Your task to perform on an android device: change notifications settings Image 0: 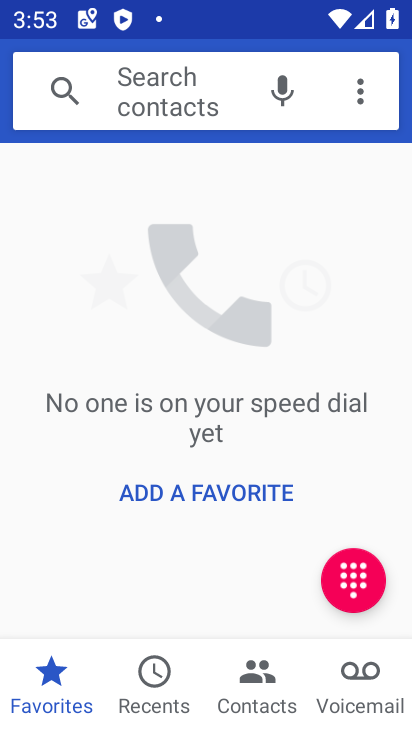
Step 0: press home button
Your task to perform on an android device: change notifications settings Image 1: 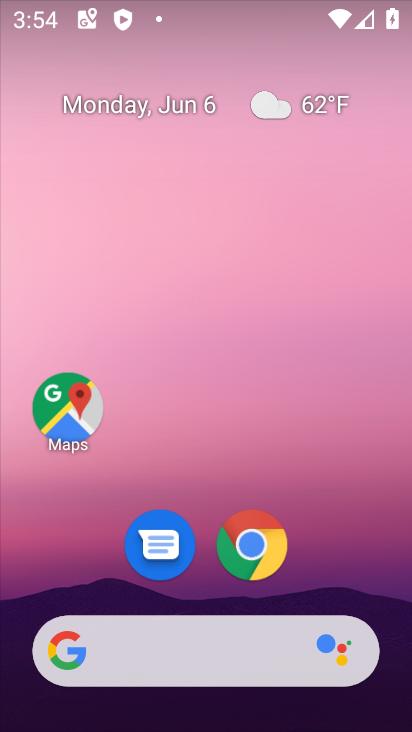
Step 1: drag from (225, 725) to (221, 135)
Your task to perform on an android device: change notifications settings Image 2: 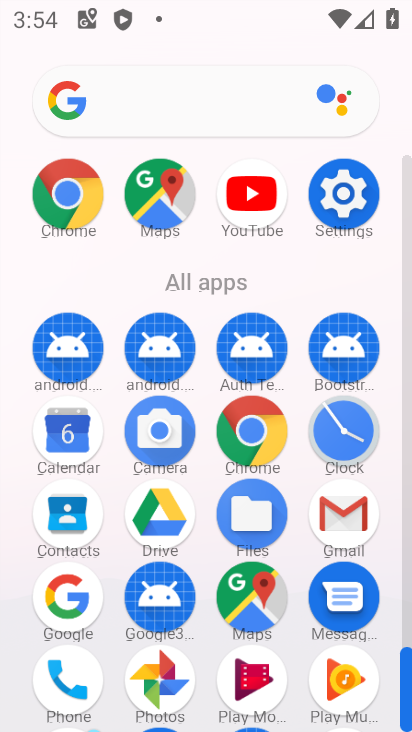
Step 2: click (339, 206)
Your task to perform on an android device: change notifications settings Image 3: 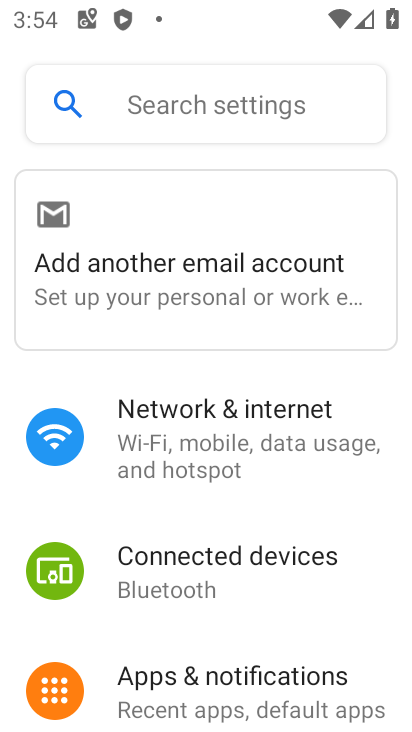
Step 3: click (258, 687)
Your task to perform on an android device: change notifications settings Image 4: 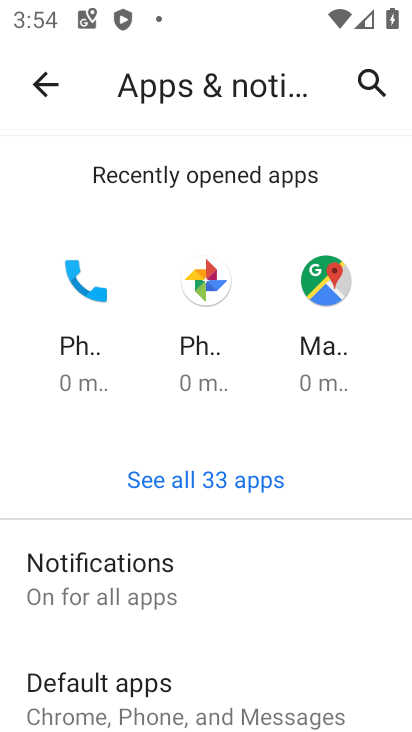
Step 4: drag from (206, 689) to (207, 367)
Your task to perform on an android device: change notifications settings Image 5: 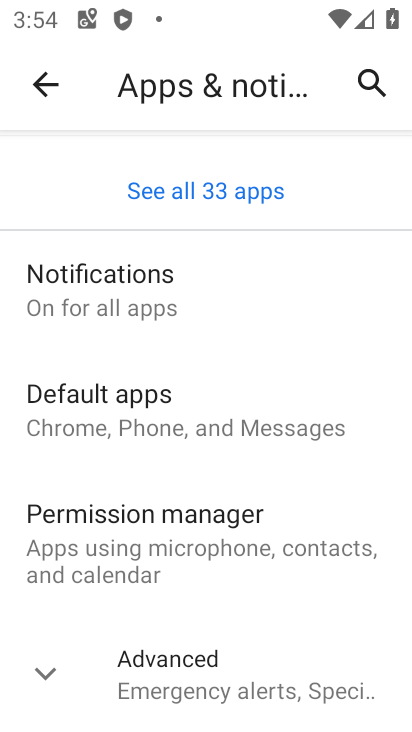
Step 5: click (80, 293)
Your task to perform on an android device: change notifications settings Image 6: 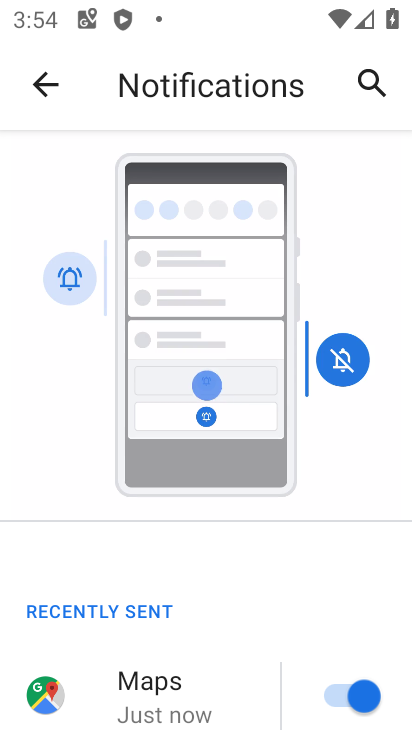
Step 6: drag from (200, 723) to (197, 327)
Your task to perform on an android device: change notifications settings Image 7: 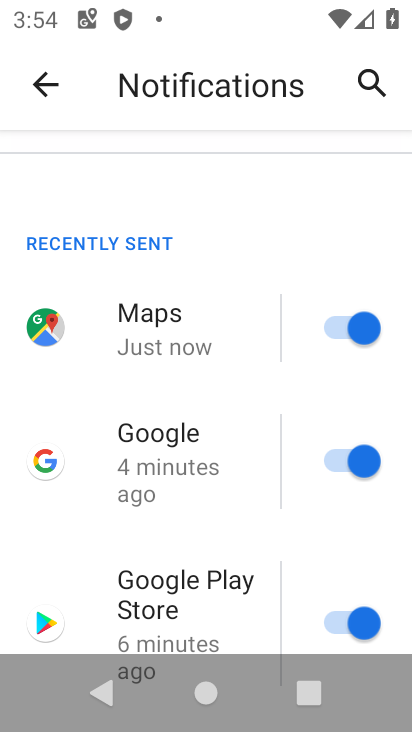
Step 7: drag from (240, 637) to (239, 193)
Your task to perform on an android device: change notifications settings Image 8: 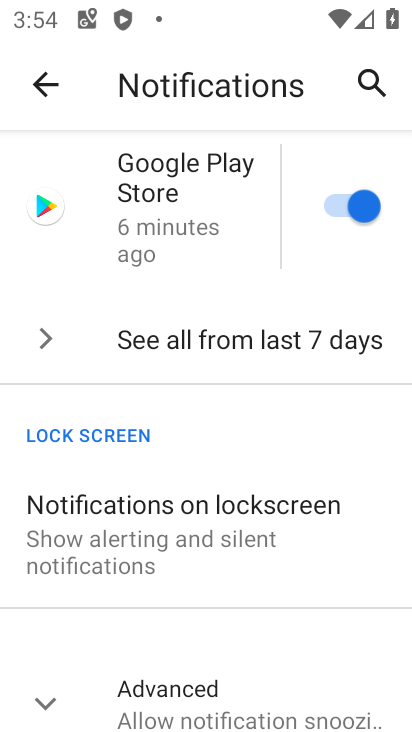
Step 8: drag from (186, 682) to (185, 338)
Your task to perform on an android device: change notifications settings Image 9: 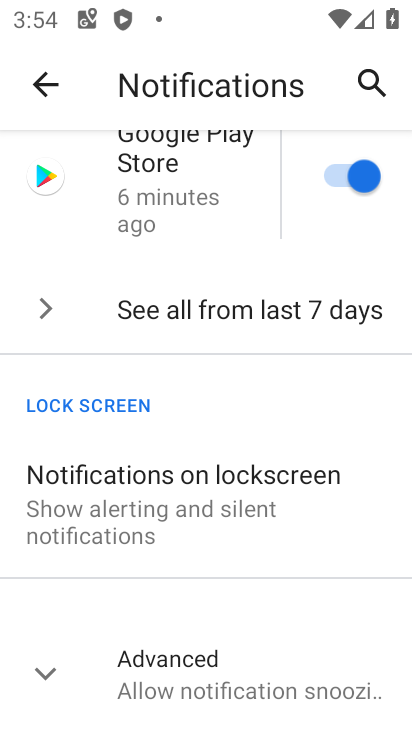
Step 9: click (203, 658)
Your task to perform on an android device: change notifications settings Image 10: 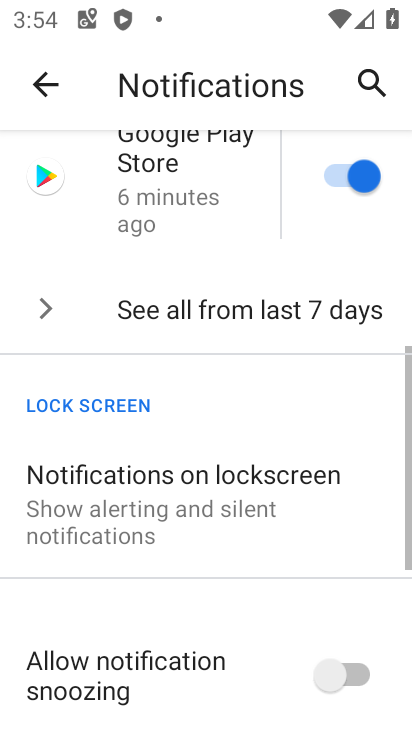
Step 10: click (360, 673)
Your task to perform on an android device: change notifications settings Image 11: 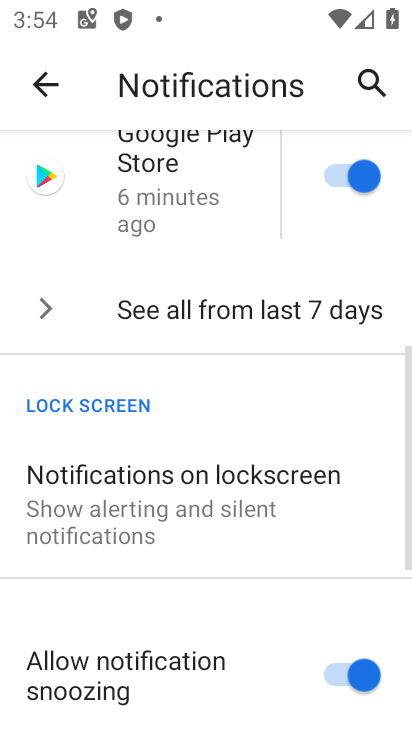
Step 11: task complete